Your task to perform on an android device: Go to sound settings Image 0: 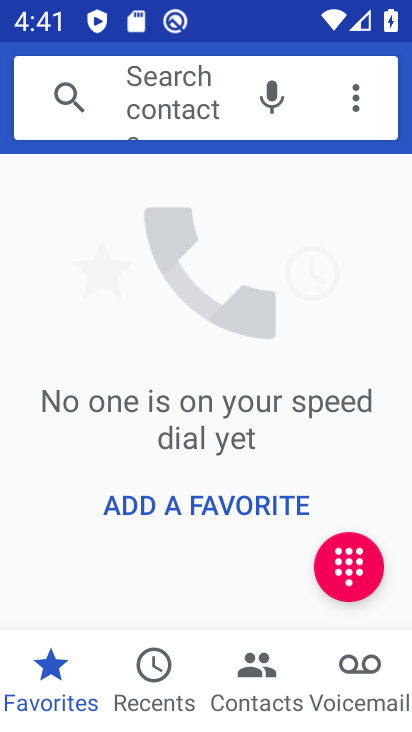
Step 0: press back button
Your task to perform on an android device: Go to sound settings Image 1: 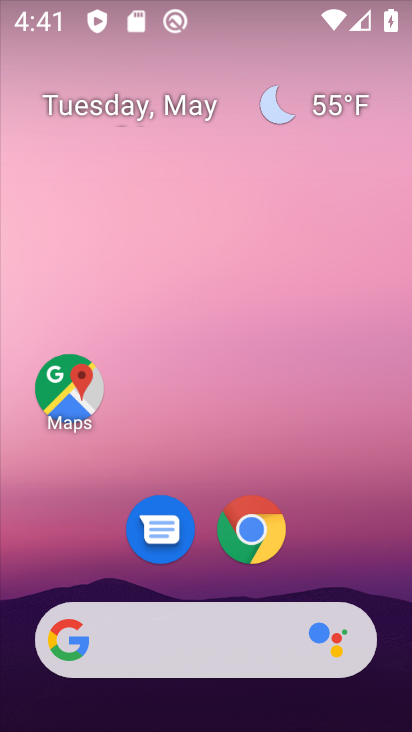
Step 1: drag from (257, 697) to (172, 171)
Your task to perform on an android device: Go to sound settings Image 2: 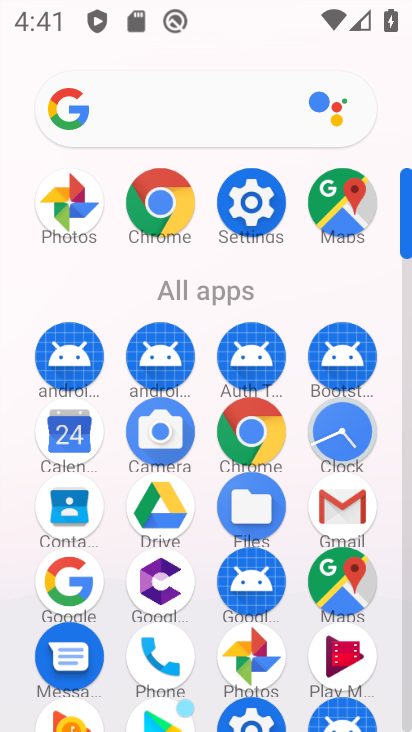
Step 2: click (250, 211)
Your task to perform on an android device: Go to sound settings Image 3: 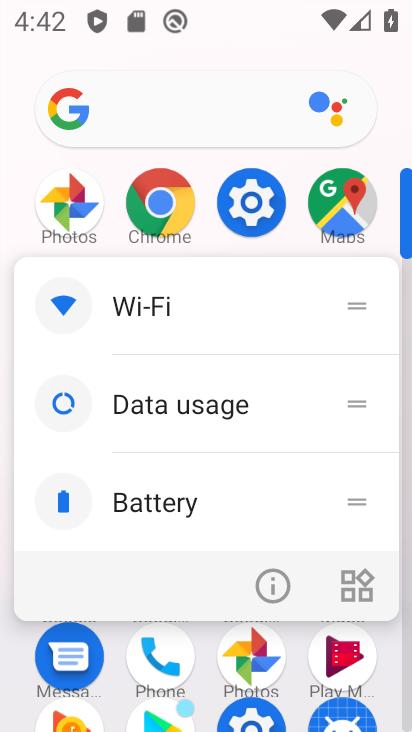
Step 3: click (235, 175)
Your task to perform on an android device: Go to sound settings Image 4: 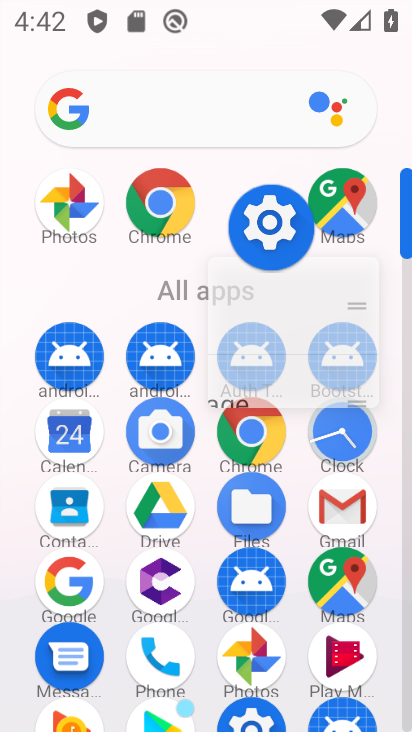
Step 4: click (256, 203)
Your task to perform on an android device: Go to sound settings Image 5: 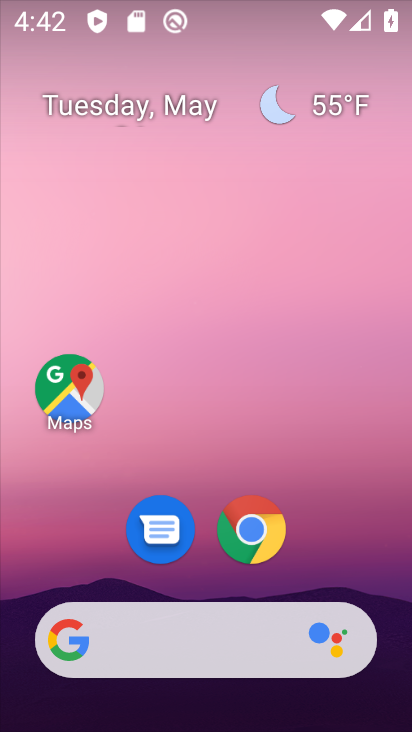
Step 5: drag from (250, 715) to (245, 171)
Your task to perform on an android device: Go to sound settings Image 6: 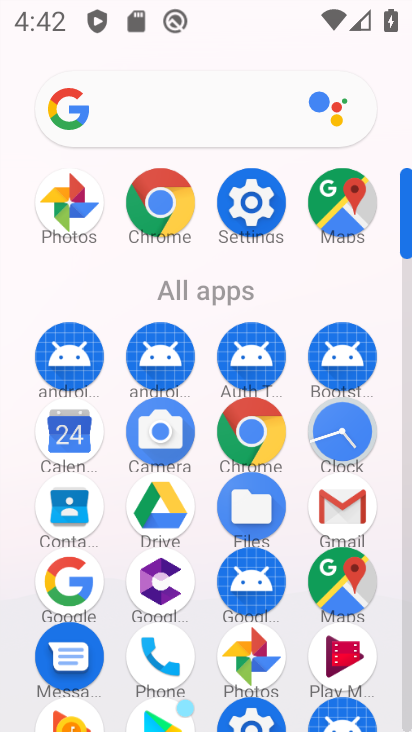
Step 6: click (247, 202)
Your task to perform on an android device: Go to sound settings Image 7: 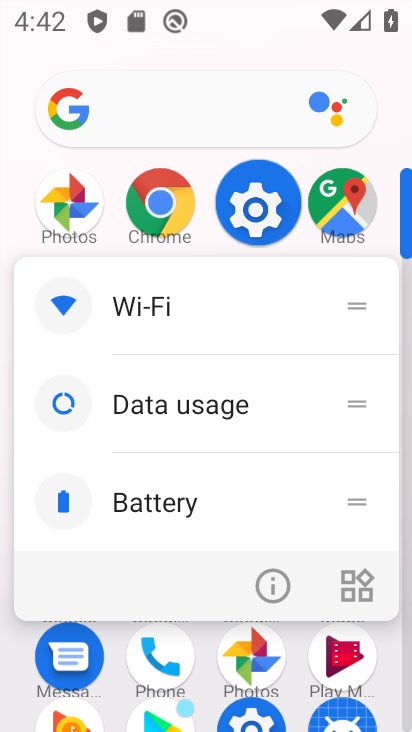
Step 7: click (258, 194)
Your task to perform on an android device: Go to sound settings Image 8: 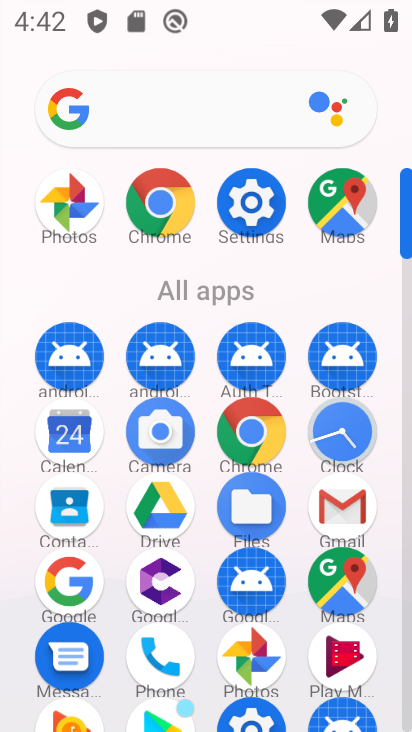
Step 8: click (256, 202)
Your task to perform on an android device: Go to sound settings Image 9: 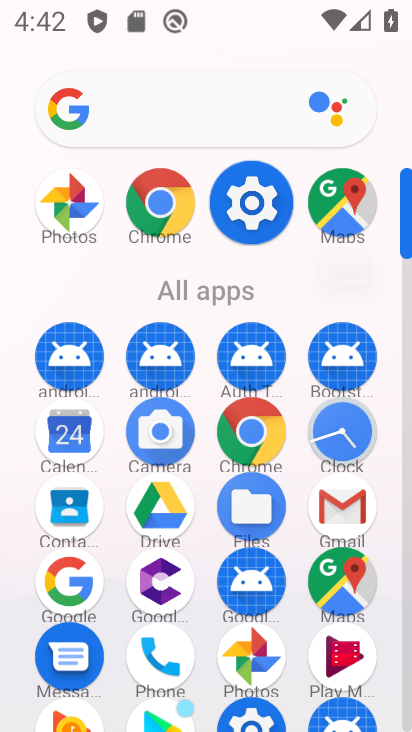
Step 9: click (259, 209)
Your task to perform on an android device: Go to sound settings Image 10: 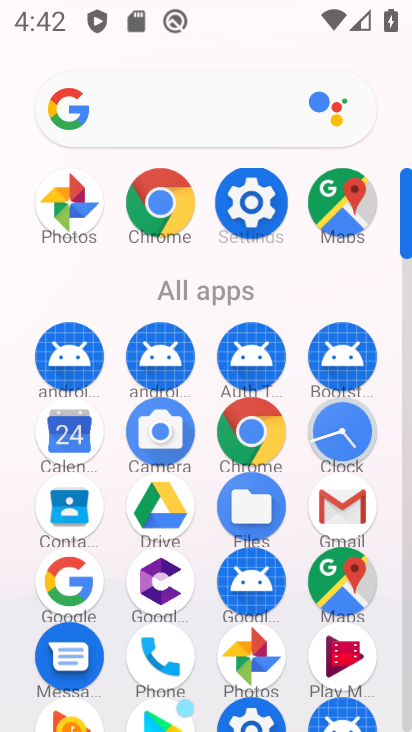
Step 10: click (259, 211)
Your task to perform on an android device: Go to sound settings Image 11: 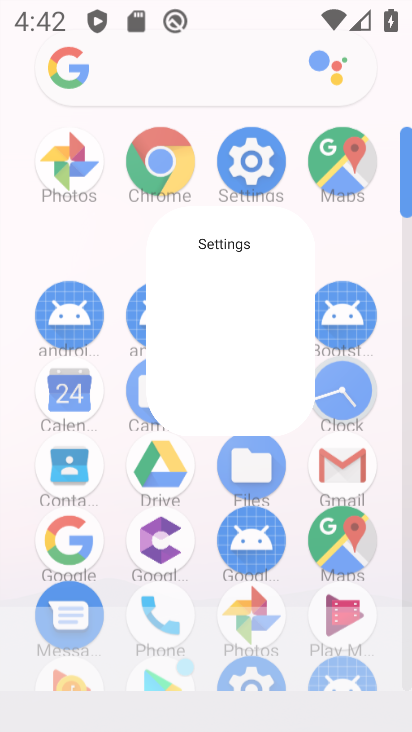
Step 11: click (256, 211)
Your task to perform on an android device: Go to sound settings Image 12: 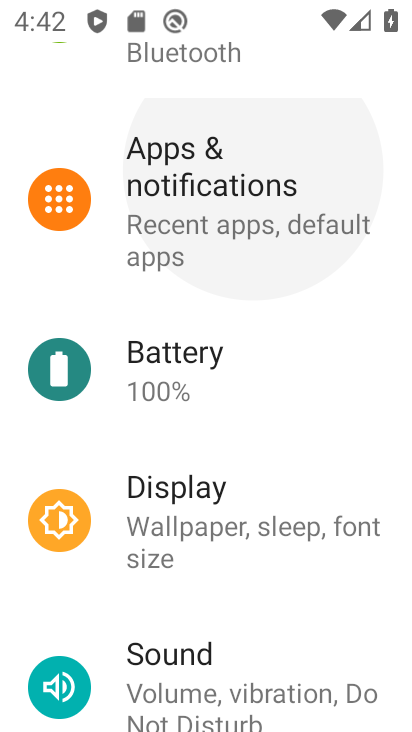
Step 12: click (250, 210)
Your task to perform on an android device: Go to sound settings Image 13: 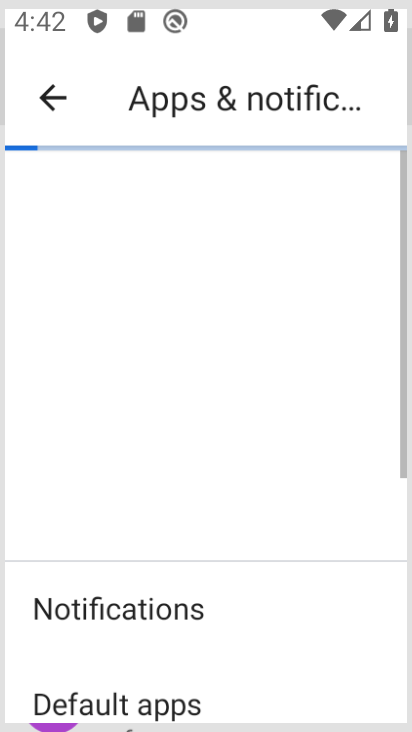
Step 13: click (195, 627)
Your task to perform on an android device: Go to sound settings Image 14: 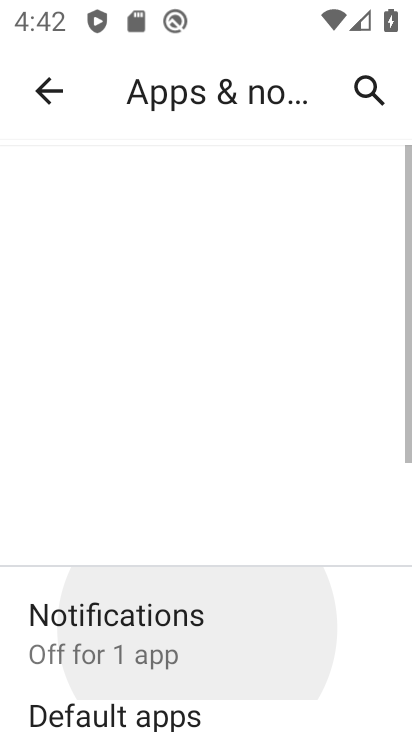
Step 14: click (187, 622)
Your task to perform on an android device: Go to sound settings Image 15: 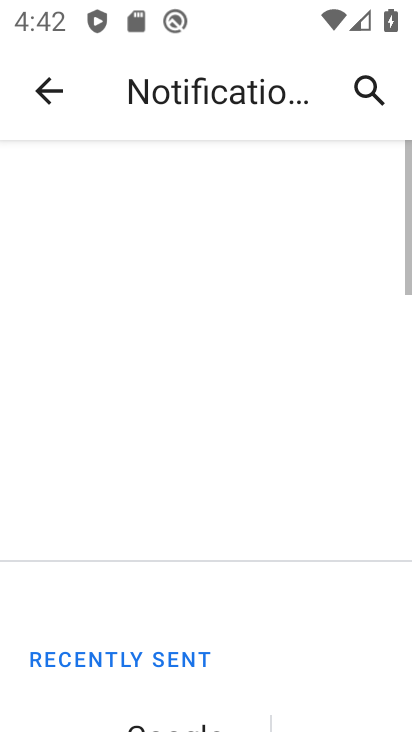
Step 15: task complete